Your task to perform on an android device: Open Google Chrome Image 0: 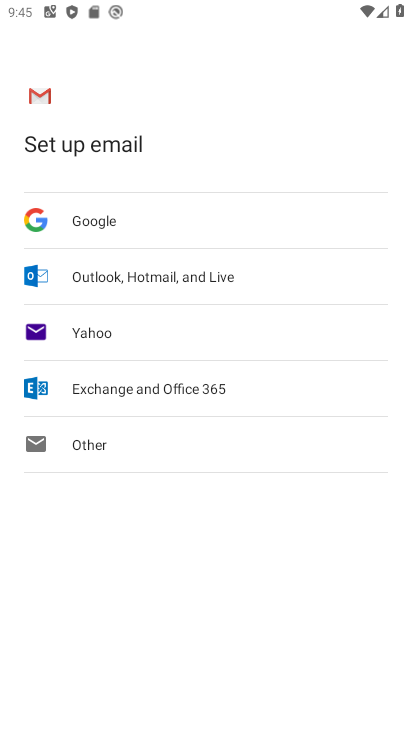
Step 0: press home button
Your task to perform on an android device: Open Google Chrome Image 1: 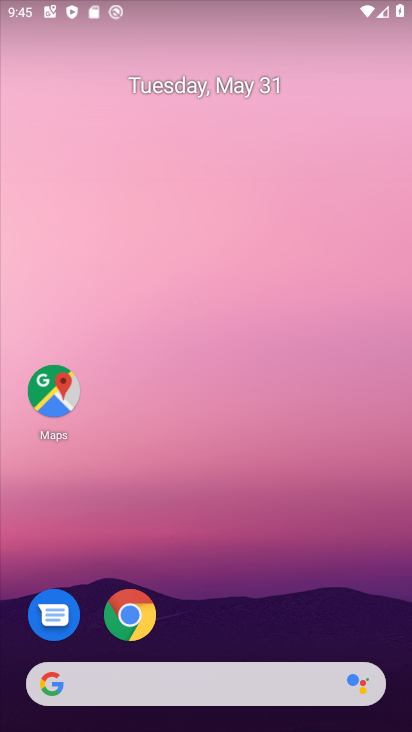
Step 1: drag from (276, 623) to (297, 123)
Your task to perform on an android device: Open Google Chrome Image 2: 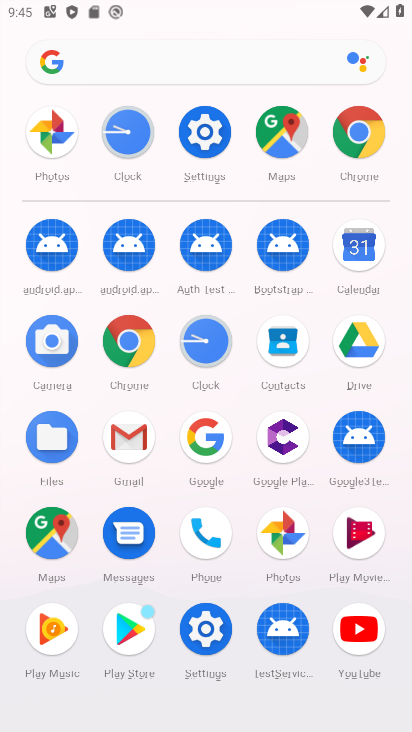
Step 2: click (370, 144)
Your task to perform on an android device: Open Google Chrome Image 3: 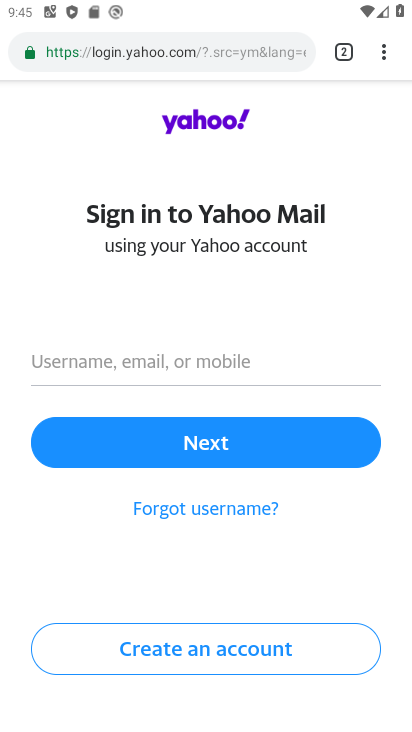
Step 3: task complete